Your task to perform on an android device: Go to location settings Image 0: 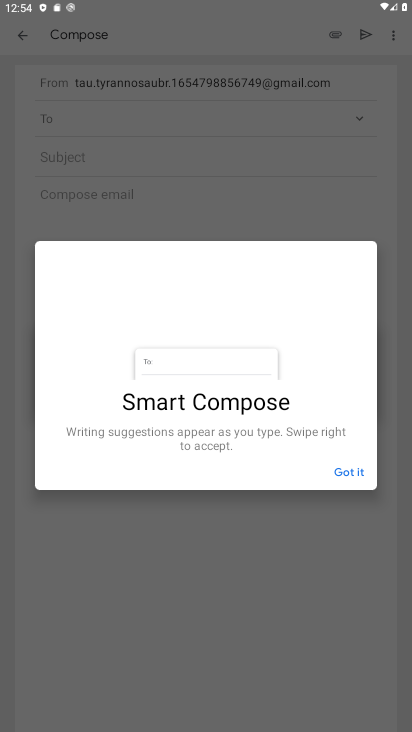
Step 0: press home button
Your task to perform on an android device: Go to location settings Image 1: 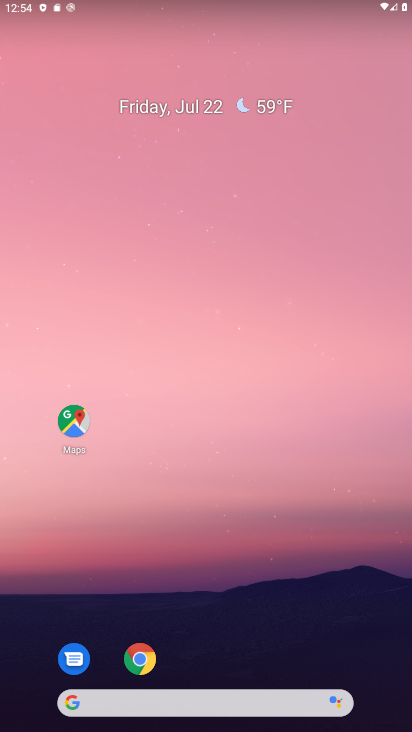
Step 1: drag from (224, 652) to (215, 213)
Your task to perform on an android device: Go to location settings Image 2: 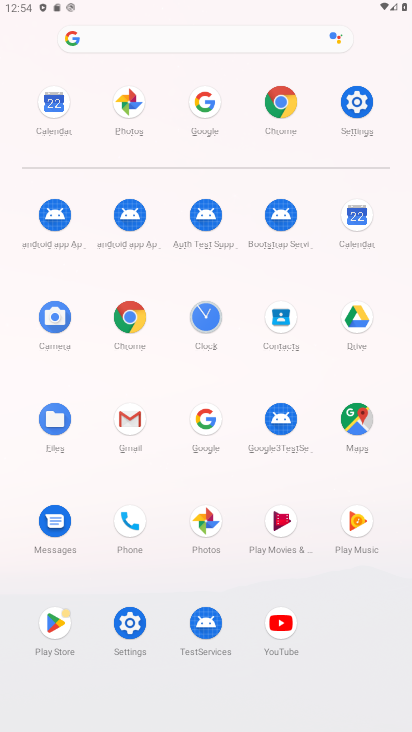
Step 2: click (356, 112)
Your task to perform on an android device: Go to location settings Image 3: 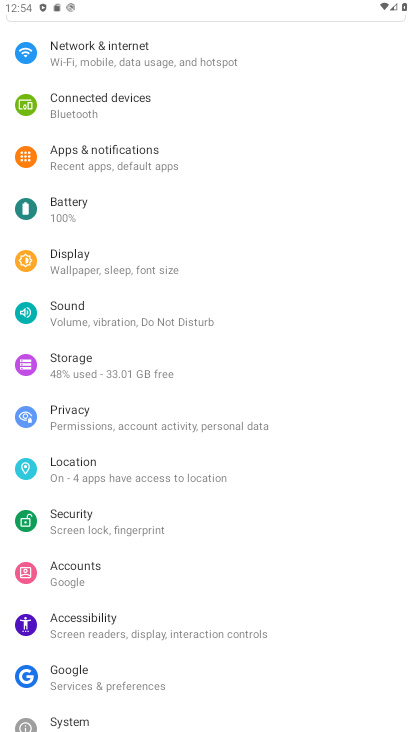
Step 3: click (115, 455)
Your task to perform on an android device: Go to location settings Image 4: 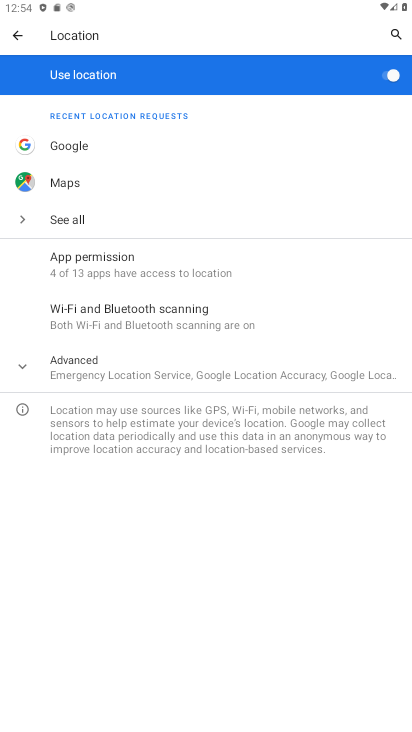
Step 4: task complete